Your task to perform on an android device: Go to location settings Image 0: 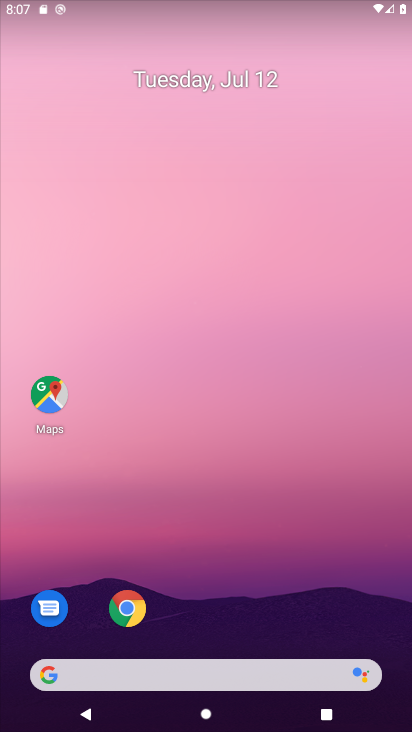
Step 0: drag from (176, 651) to (260, 127)
Your task to perform on an android device: Go to location settings Image 1: 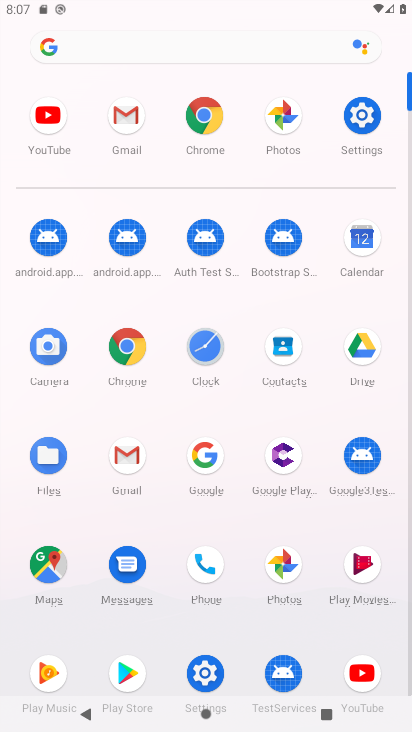
Step 1: click (354, 122)
Your task to perform on an android device: Go to location settings Image 2: 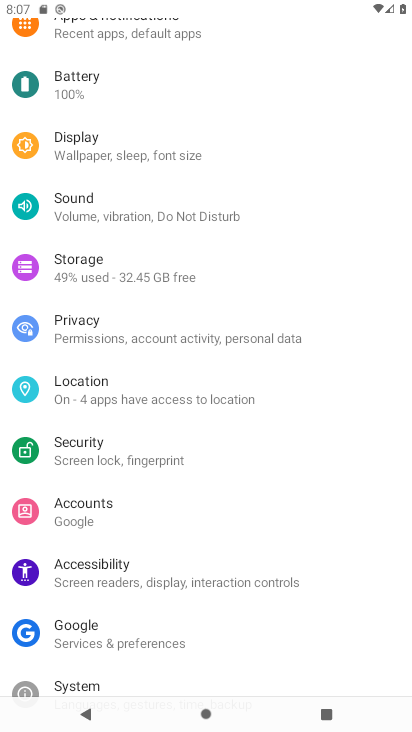
Step 2: click (91, 401)
Your task to perform on an android device: Go to location settings Image 3: 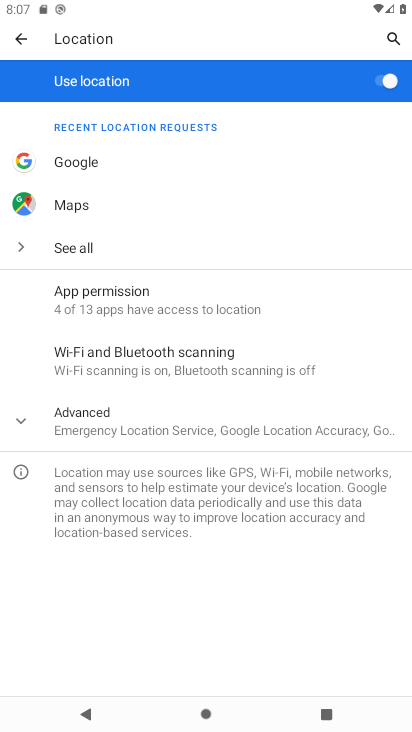
Step 3: click (90, 246)
Your task to perform on an android device: Go to location settings Image 4: 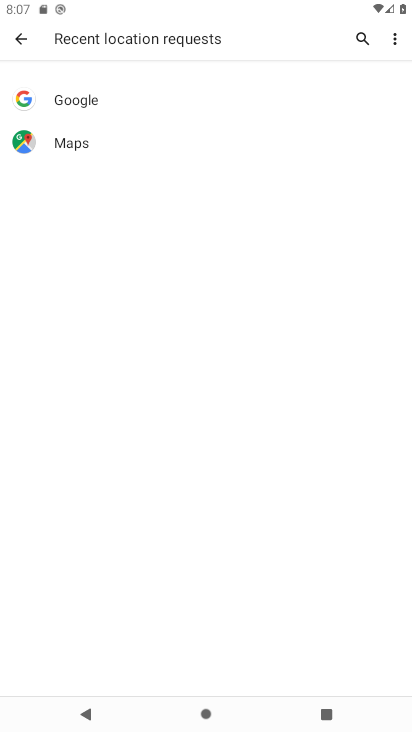
Step 4: task complete